Your task to perform on an android device: toggle translation in the chrome app Image 0: 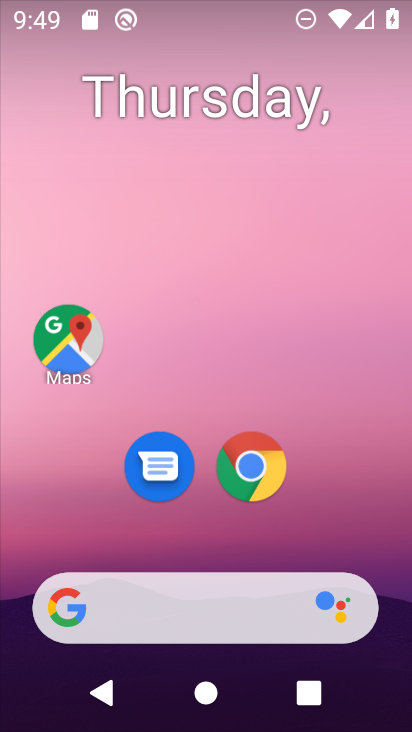
Step 0: drag from (292, 542) to (318, 5)
Your task to perform on an android device: toggle translation in the chrome app Image 1: 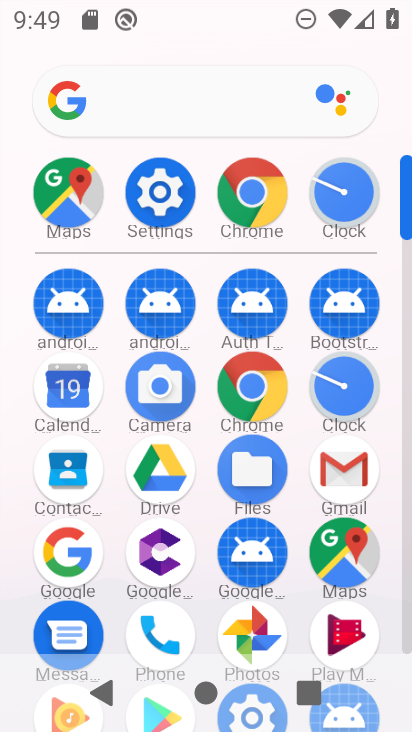
Step 1: click (253, 395)
Your task to perform on an android device: toggle translation in the chrome app Image 2: 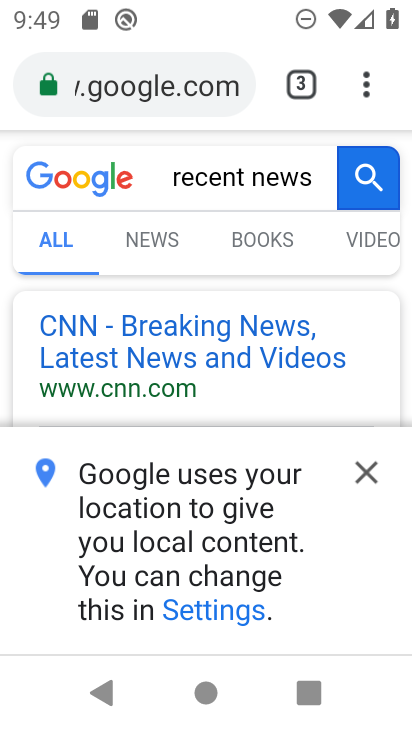
Step 2: drag from (372, 81) to (111, 526)
Your task to perform on an android device: toggle translation in the chrome app Image 3: 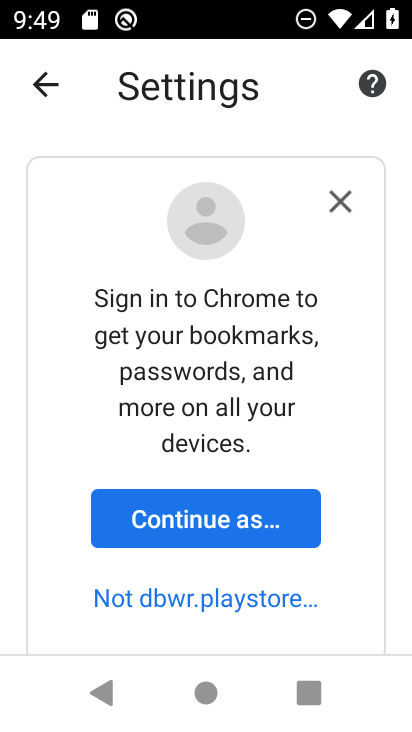
Step 3: drag from (172, 595) to (177, 171)
Your task to perform on an android device: toggle translation in the chrome app Image 4: 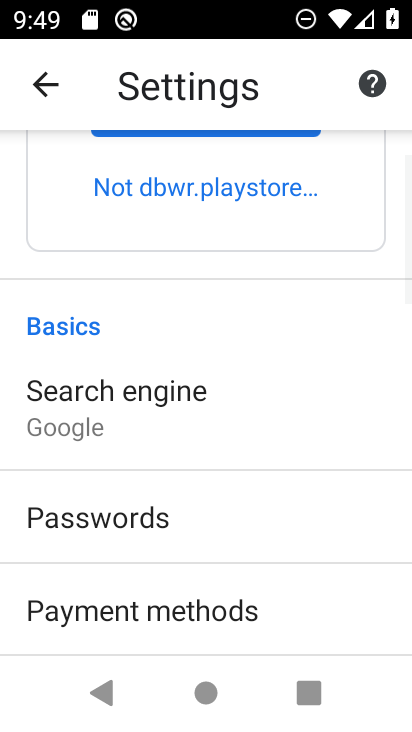
Step 4: drag from (216, 560) to (244, 149)
Your task to perform on an android device: toggle translation in the chrome app Image 5: 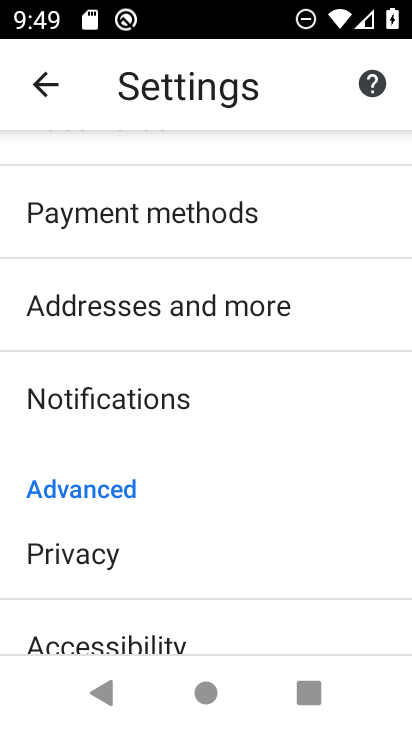
Step 5: drag from (169, 554) to (149, 222)
Your task to perform on an android device: toggle translation in the chrome app Image 6: 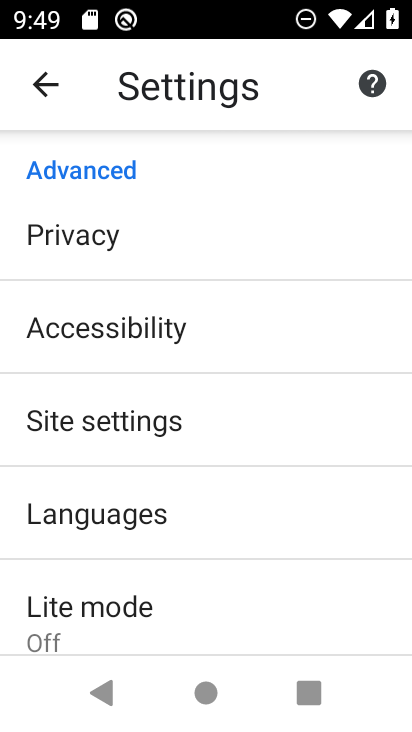
Step 6: click (128, 530)
Your task to perform on an android device: toggle translation in the chrome app Image 7: 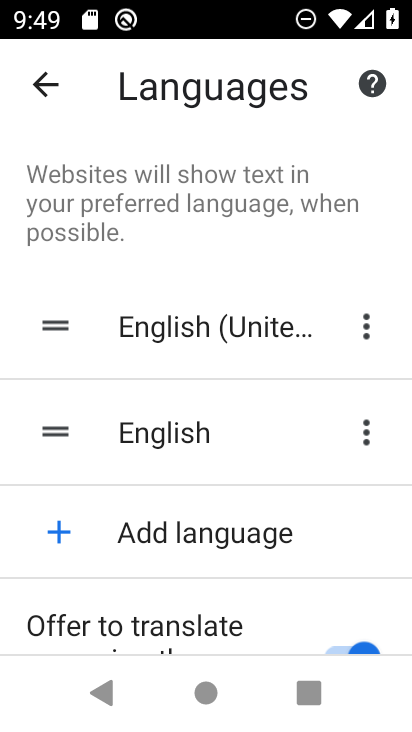
Step 7: drag from (325, 597) to (371, 355)
Your task to perform on an android device: toggle translation in the chrome app Image 8: 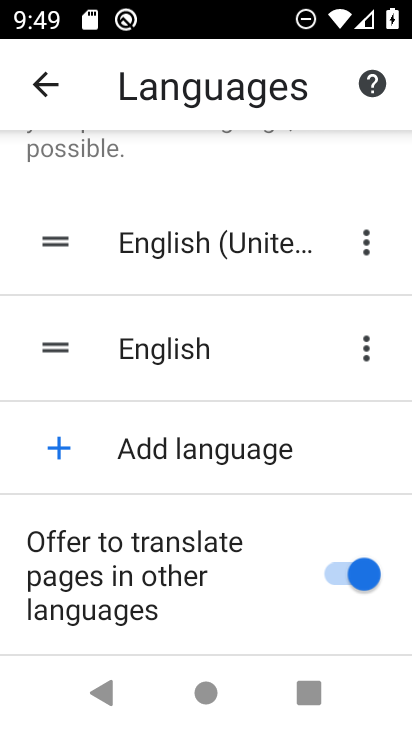
Step 8: click (334, 577)
Your task to perform on an android device: toggle translation in the chrome app Image 9: 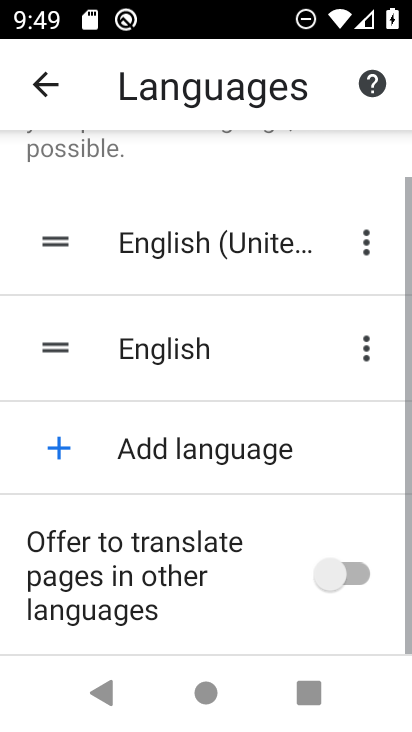
Step 9: task complete